Your task to perform on an android device: Search for lg ultragear on costco.com, select the first entry, add it to the cart, then select checkout. Image 0: 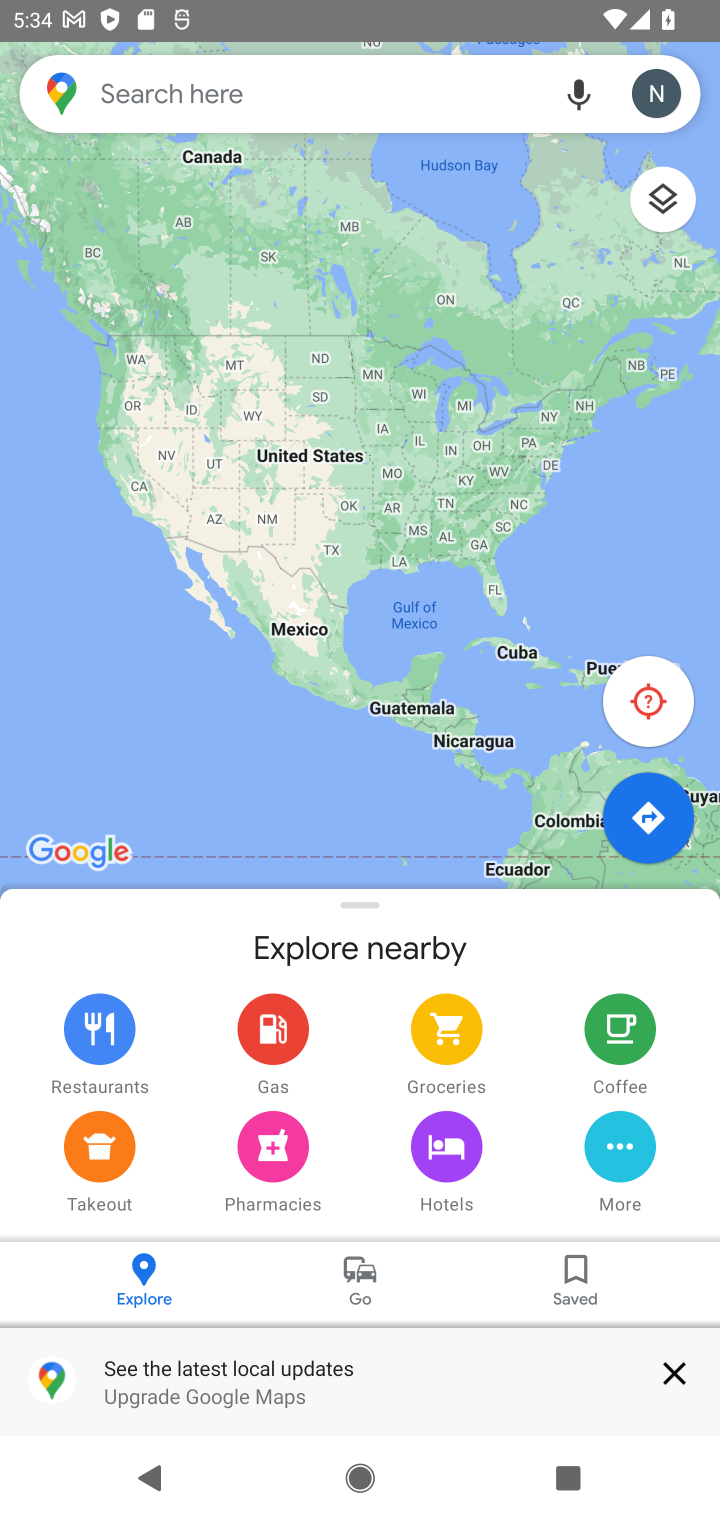
Step 0: press home button
Your task to perform on an android device: Search for lg ultragear on costco.com, select the first entry, add it to the cart, then select checkout. Image 1: 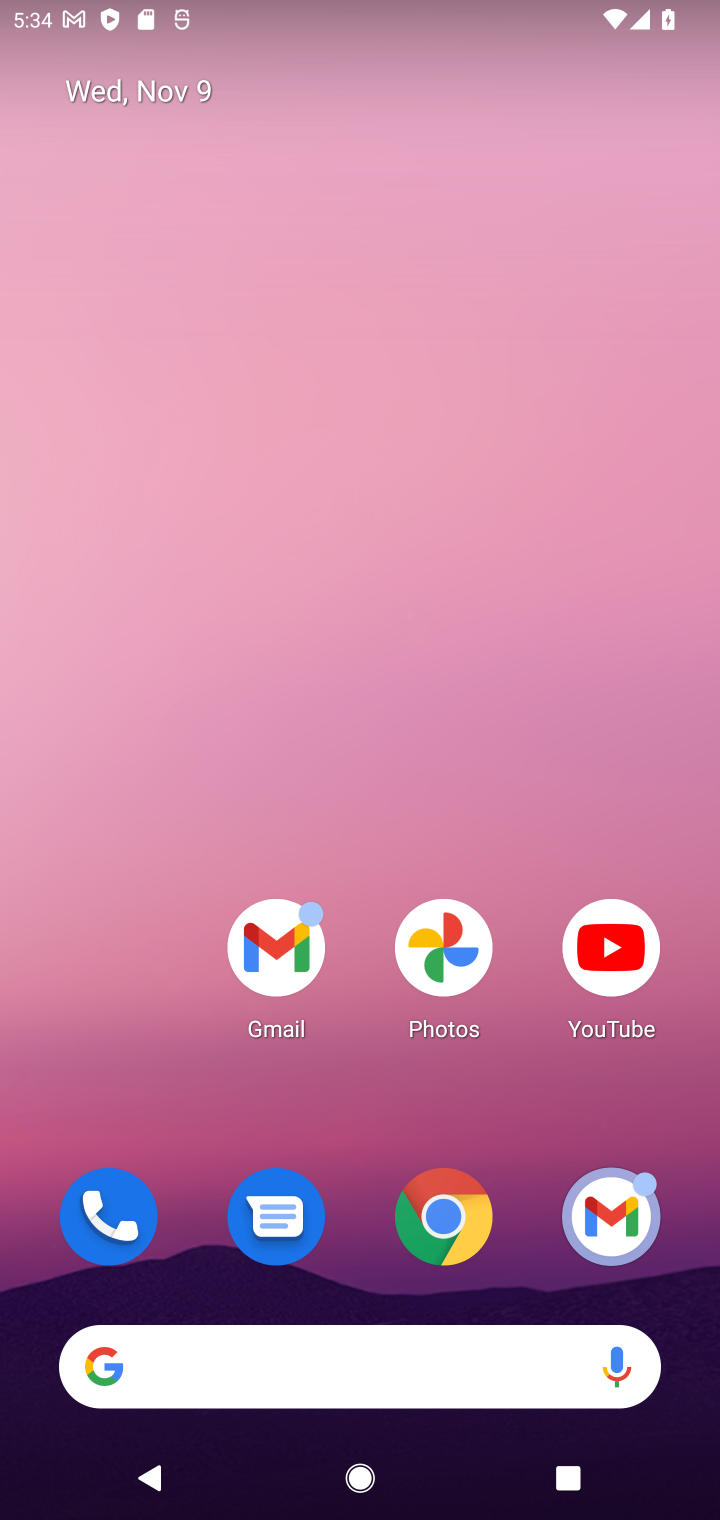
Step 1: drag from (363, 1106) to (433, 138)
Your task to perform on an android device: Search for lg ultragear on costco.com, select the first entry, add it to the cart, then select checkout. Image 2: 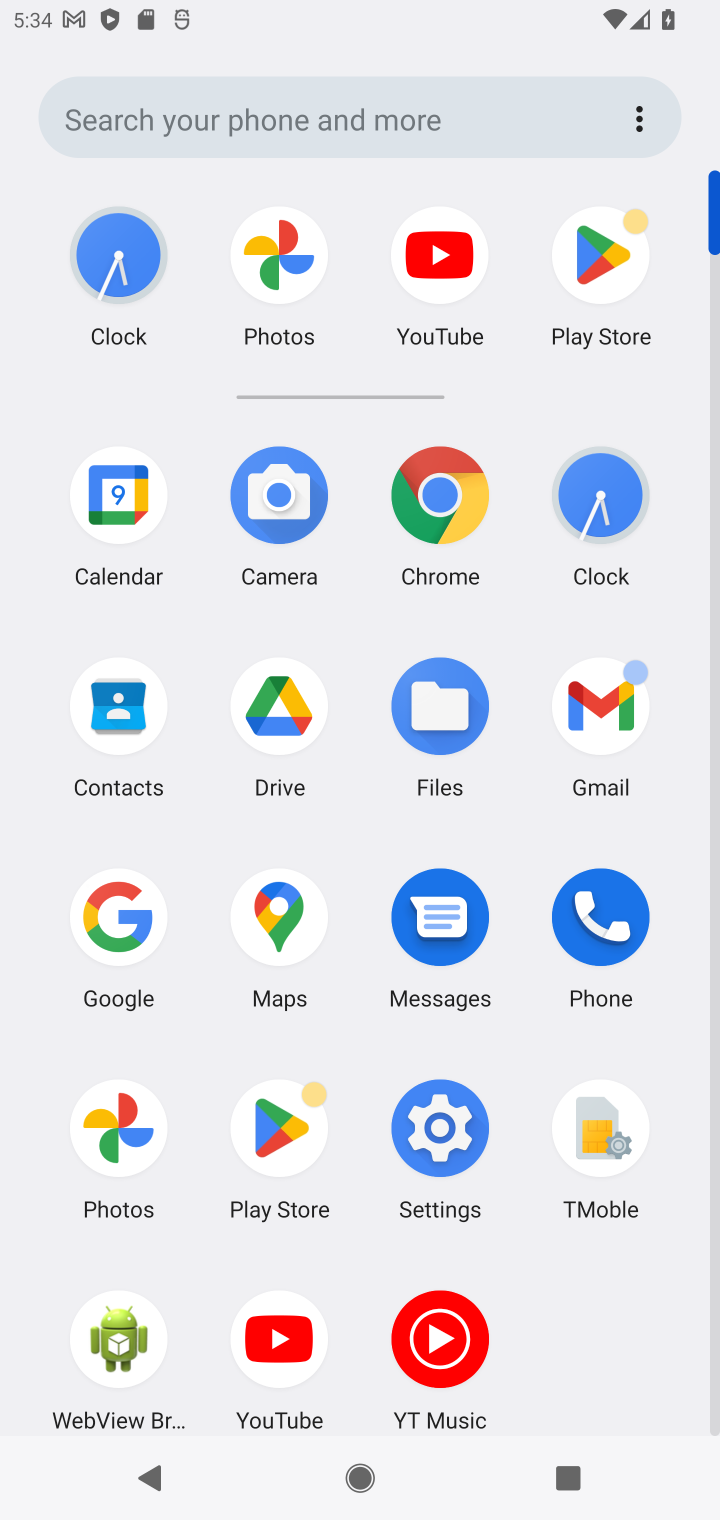
Step 2: click (445, 501)
Your task to perform on an android device: Search for lg ultragear on costco.com, select the first entry, add it to the cart, then select checkout. Image 3: 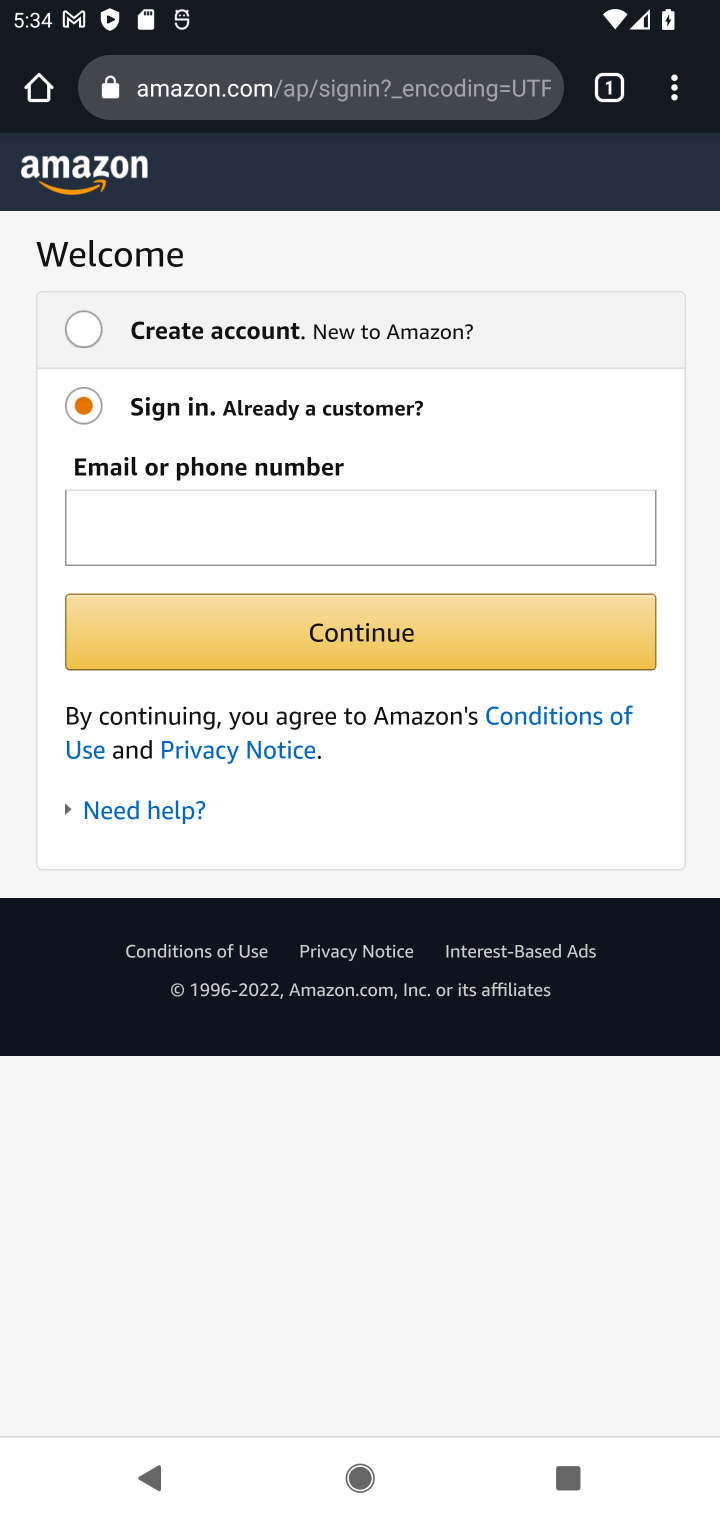
Step 3: click (268, 94)
Your task to perform on an android device: Search for lg ultragear on costco.com, select the first entry, add it to the cart, then select checkout. Image 4: 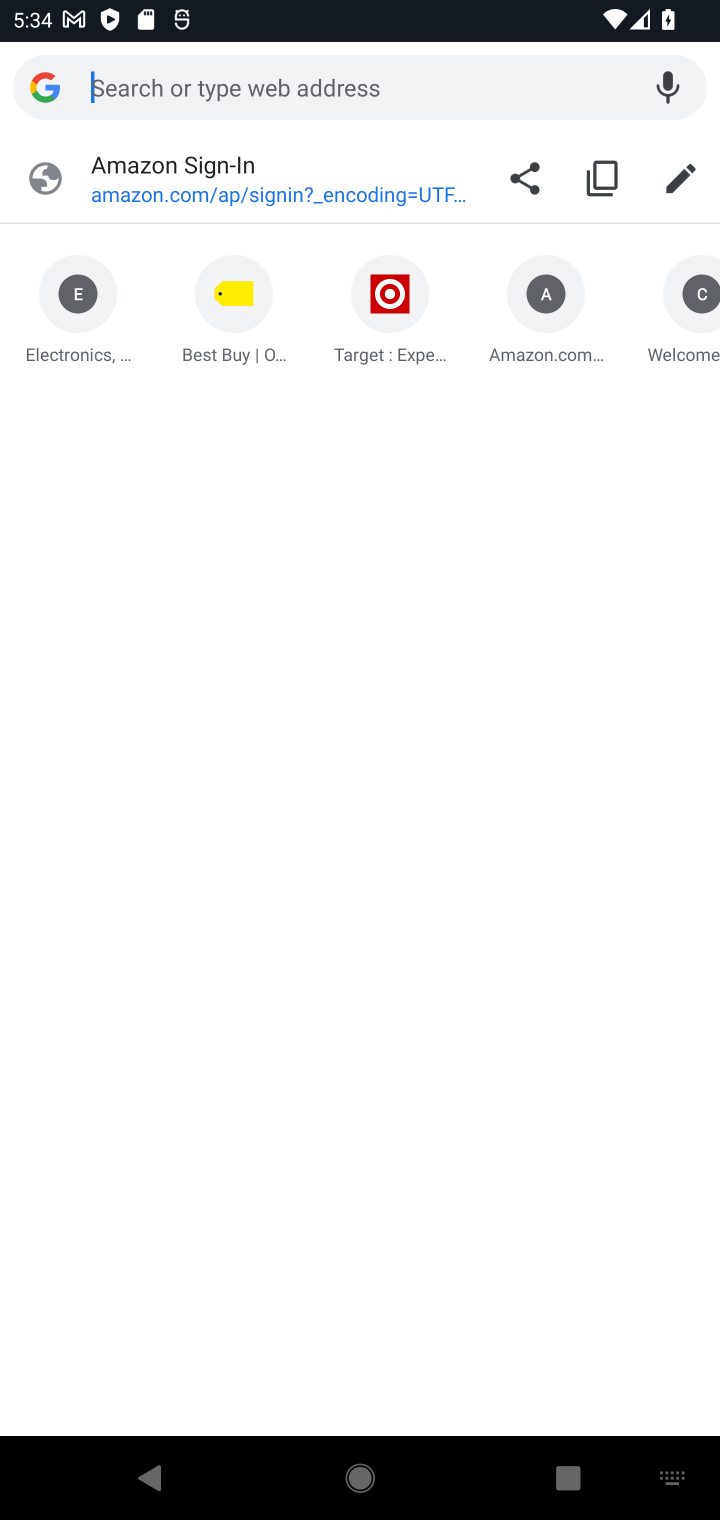
Step 4: type "costco.com"
Your task to perform on an android device: Search for lg ultragear on costco.com, select the first entry, add it to the cart, then select checkout. Image 5: 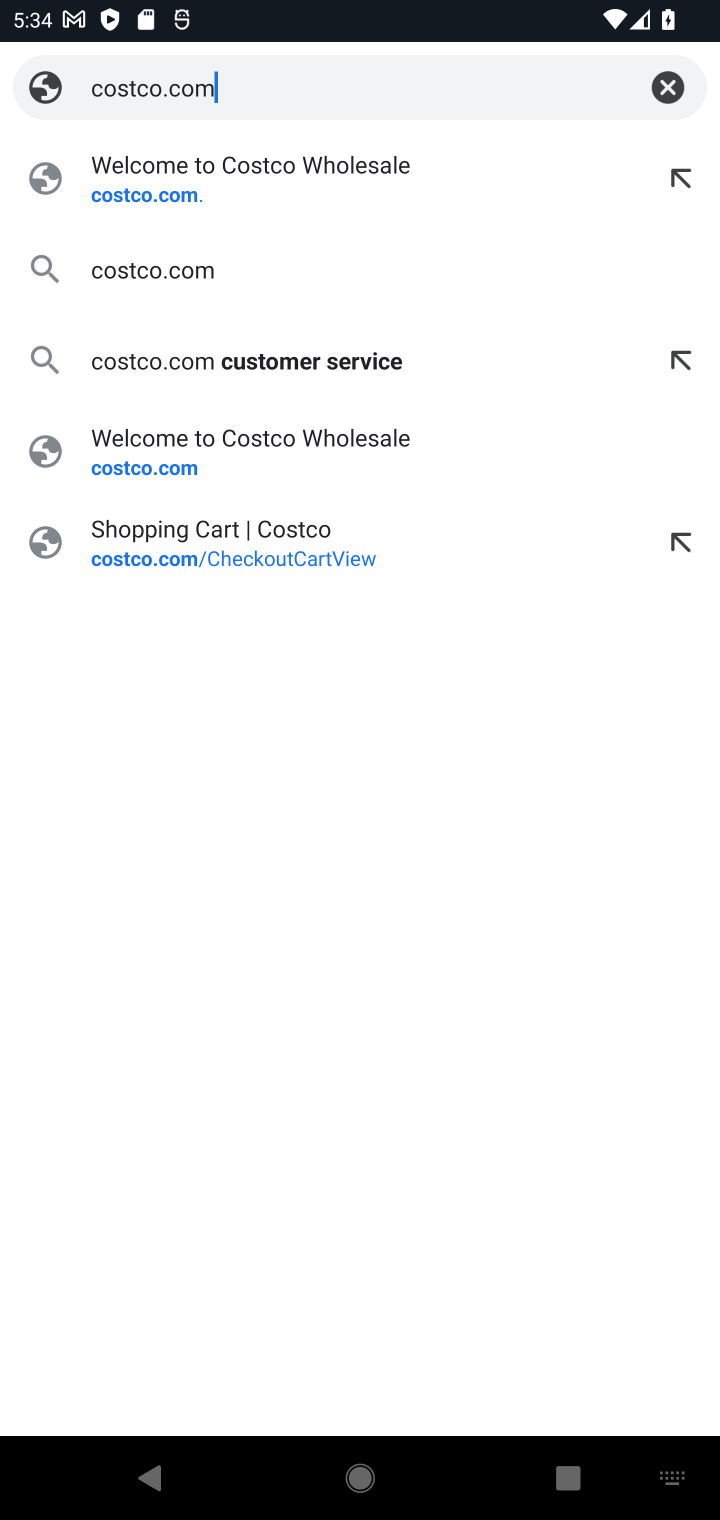
Step 5: press enter
Your task to perform on an android device: Search for lg ultragear on costco.com, select the first entry, add it to the cart, then select checkout. Image 6: 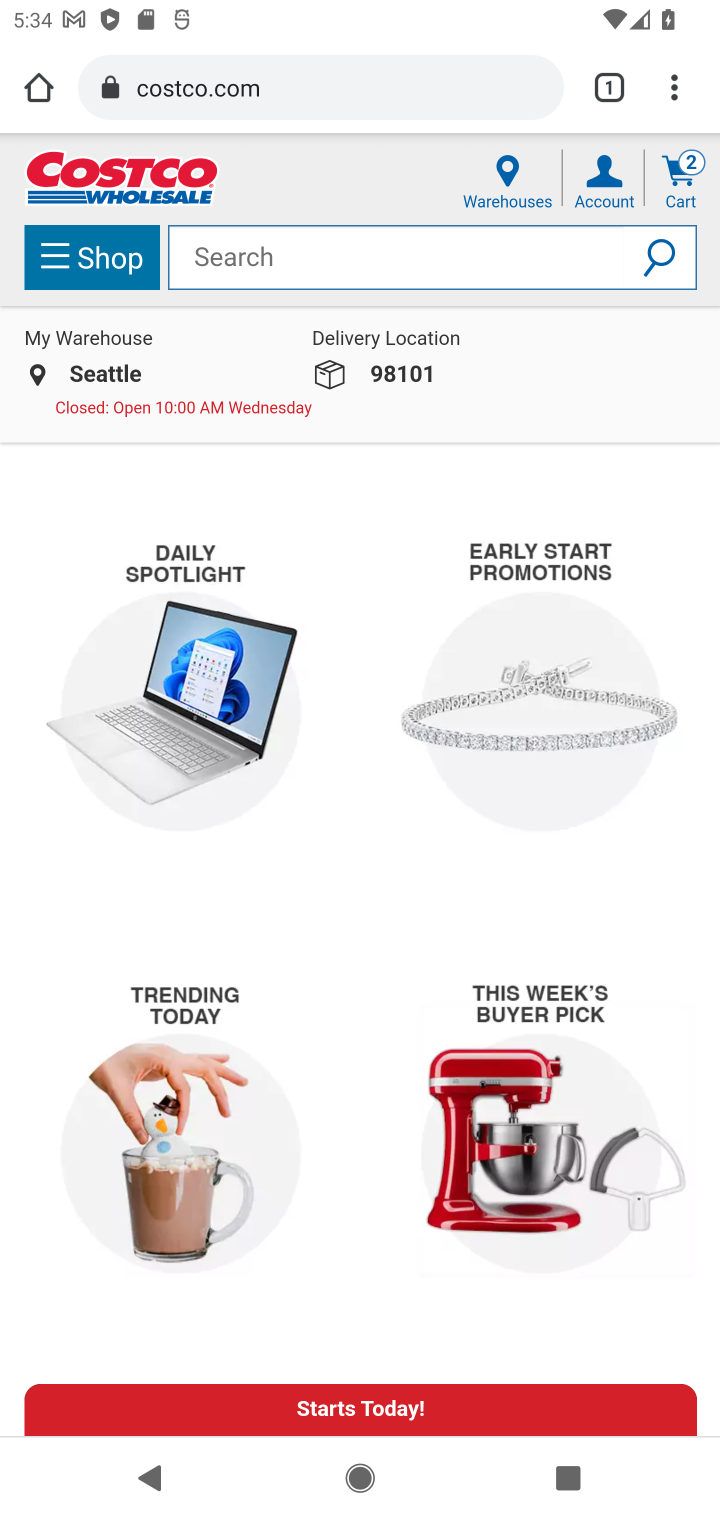
Step 6: click (520, 244)
Your task to perform on an android device: Search for lg ultragear on costco.com, select the first entry, add it to the cart, then select checkout. Image 7: 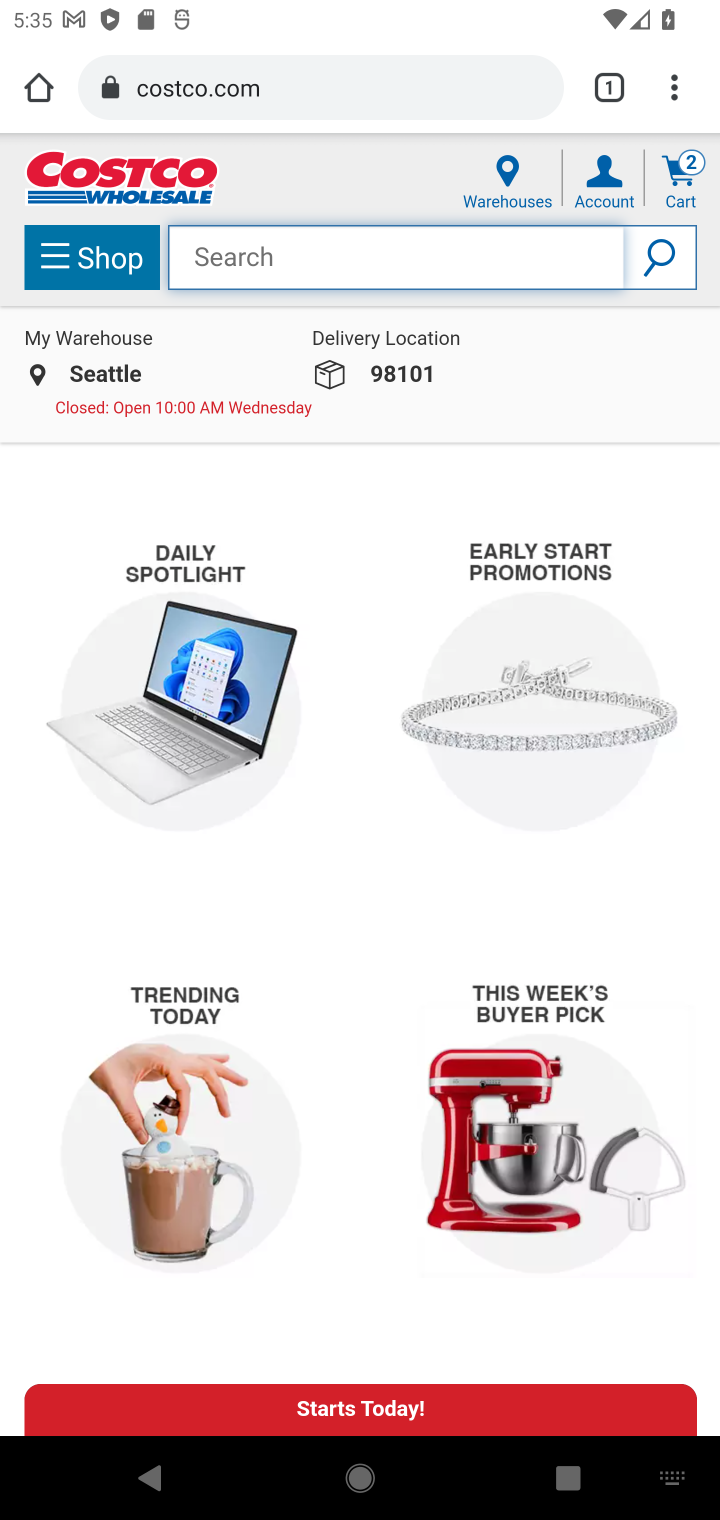
Step 7: type "lg ultagear"
Your task to perform on an android device: Search for lg ultragear on costco.com, select the first entry, add it to the cart, then select checkout. Image 8: 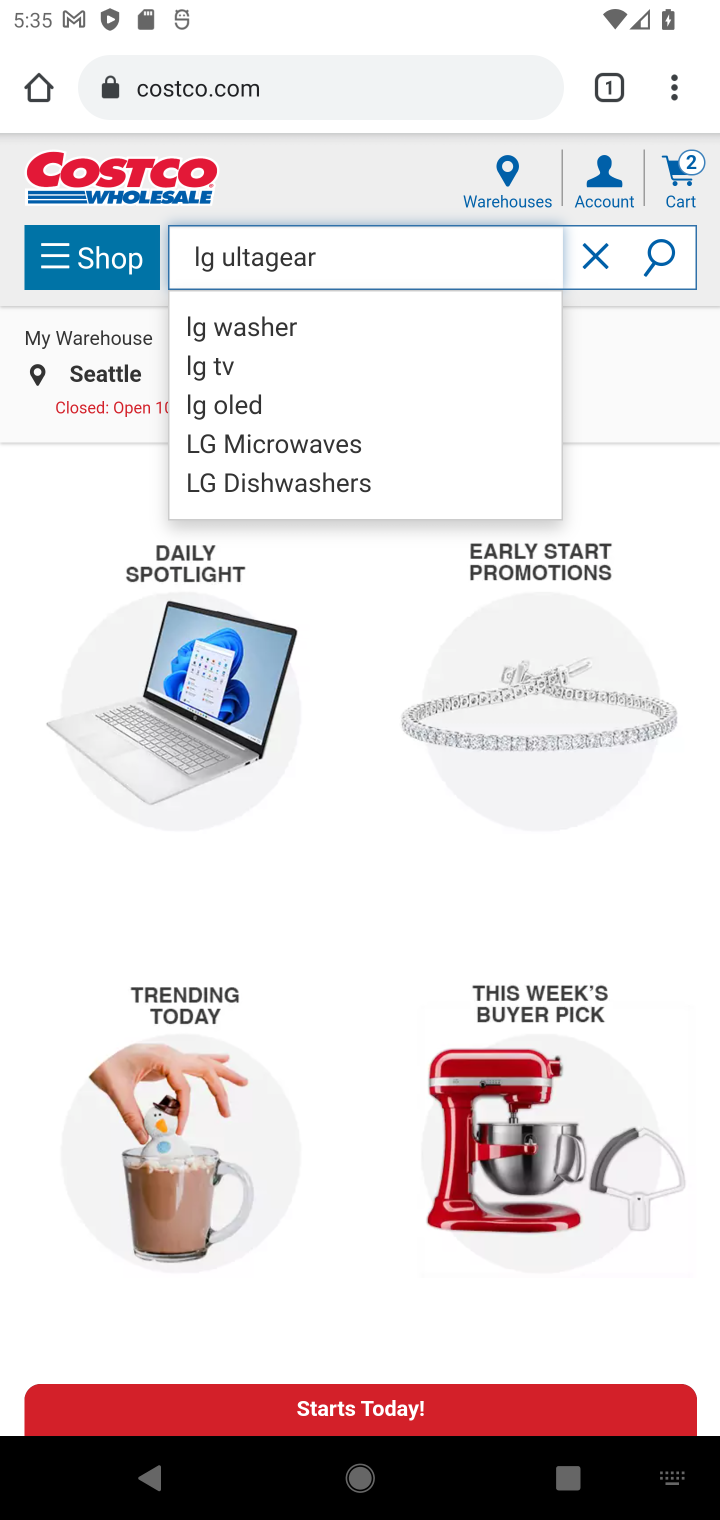
Step 8: press enter
Your task to perform on an android device: Search for lg ultragear on costco.com, select the first entry, add it to the cart, then select checkout. Image 9: 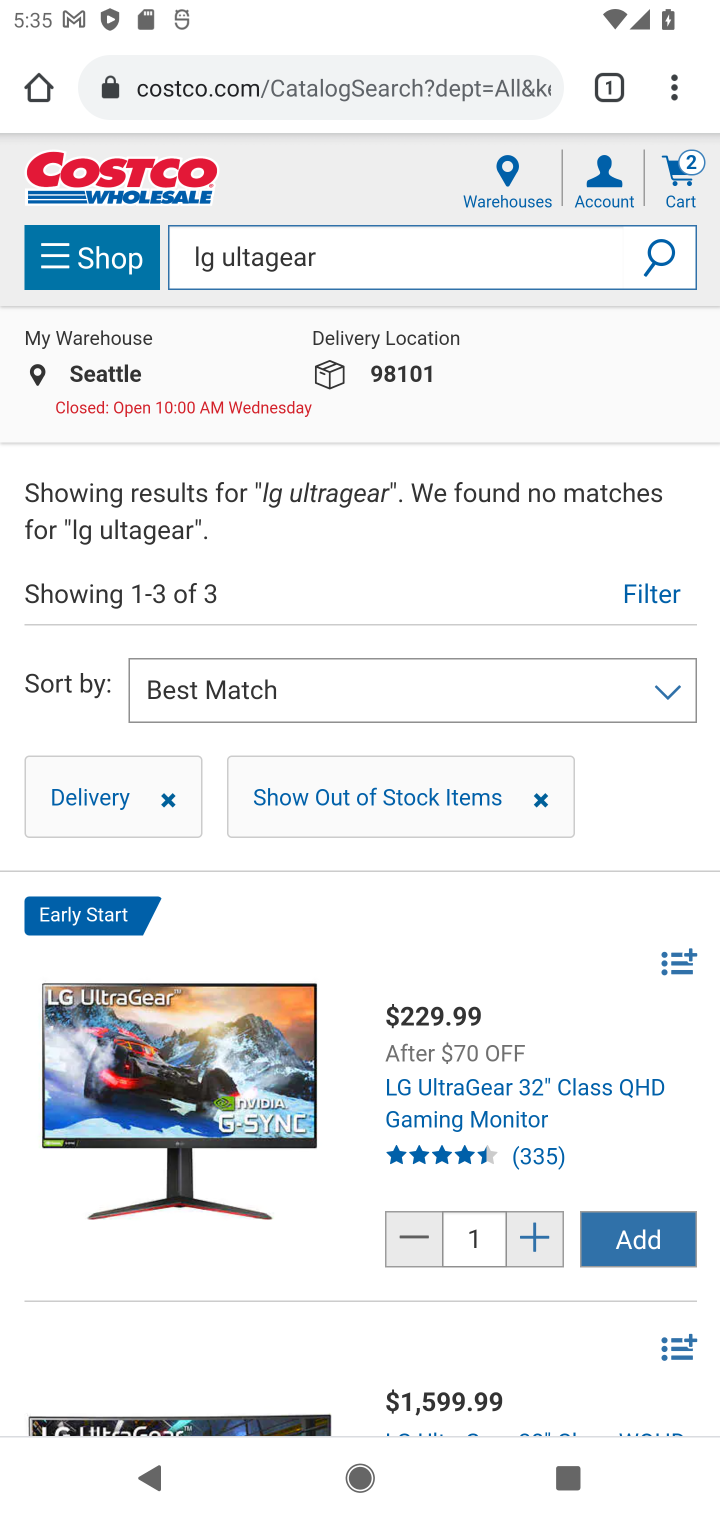
Step 9: click (637, 1249)
Your task to perform on an android device: Search for lg ultragear on costco.com, select the first entry, add it to the cart, then select checkout. Image 10: 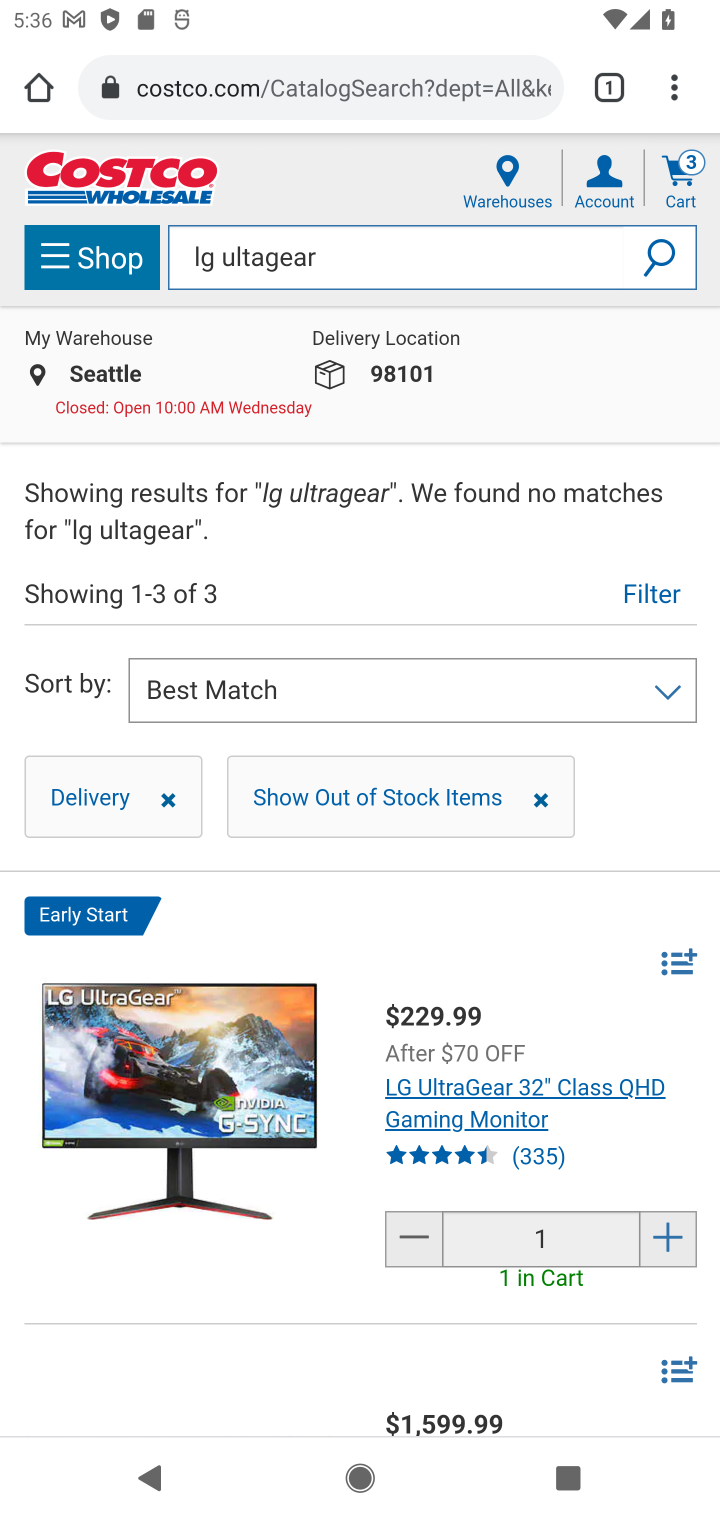
Step 10: click (680, 152)
Your task to perform on an android device: Search for lg ultragear on costco.com, select the first entry, add it to the cart, then select checkout. Image 11: 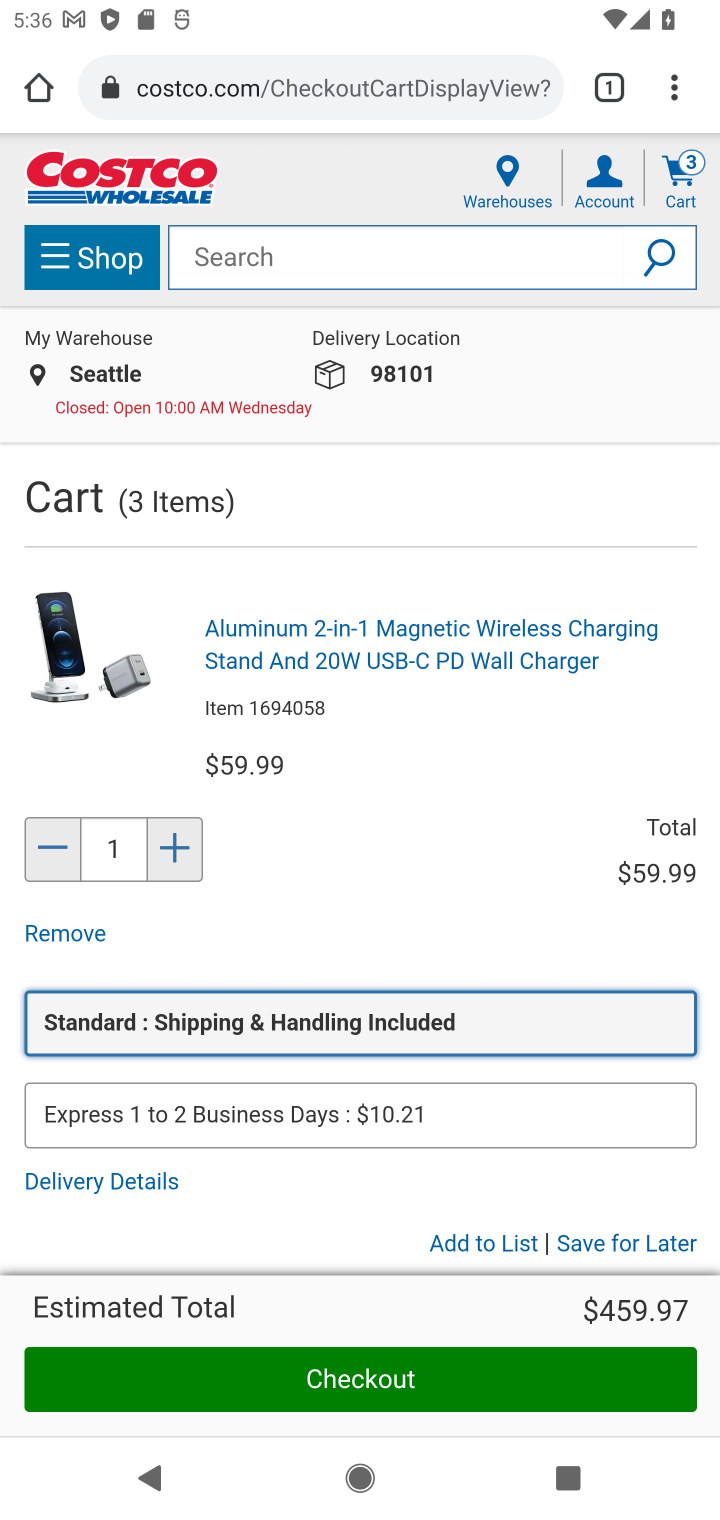
Step 11: click (427, 1360)
Your task to perform on an android device: Search for lg ultragear on costco.com, select the first entry, add it to the cart, then select checkout. Image 12: 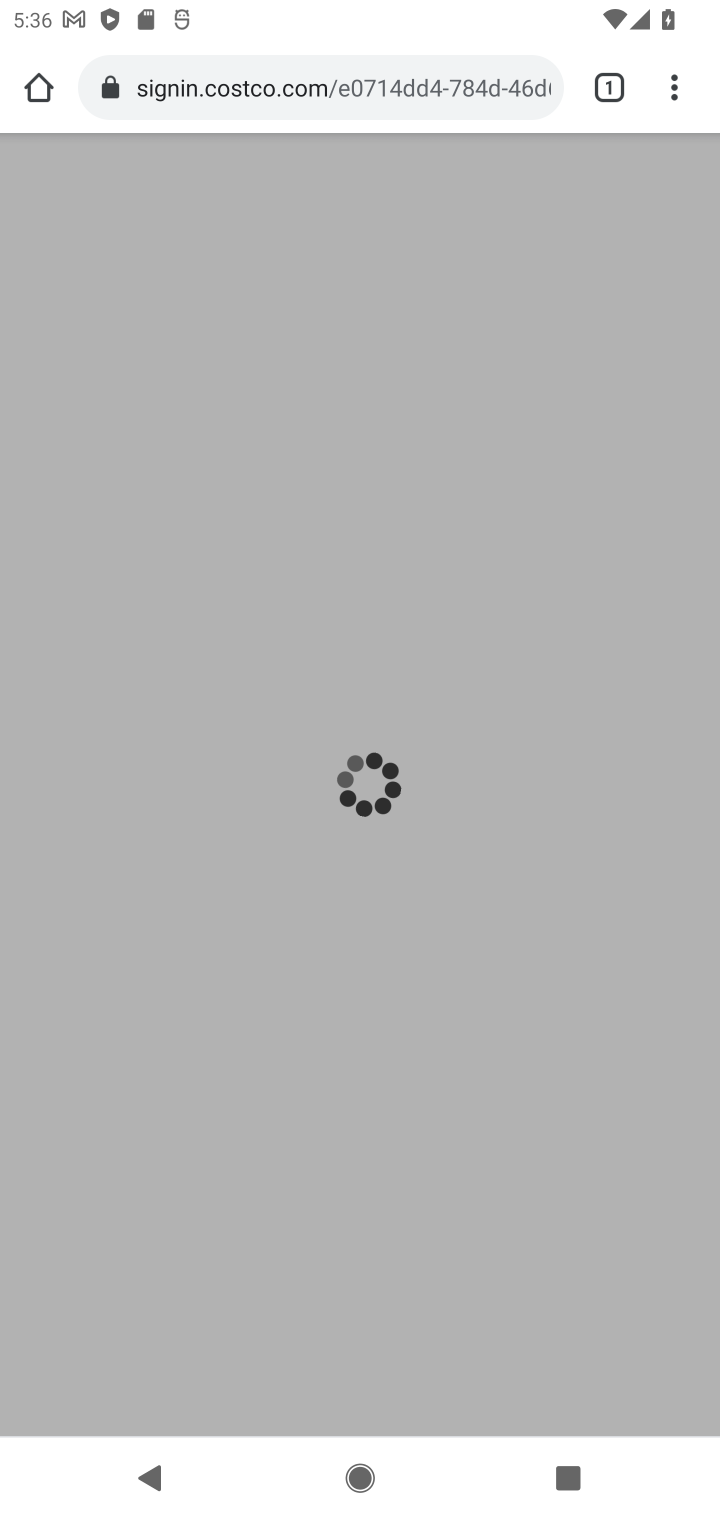
Step 12: click (445, 1430)
Your task to perform on an android device: Search for lg ultragear on costco.com, select the first entry, add it to the cart, then select checkout. Image 13: 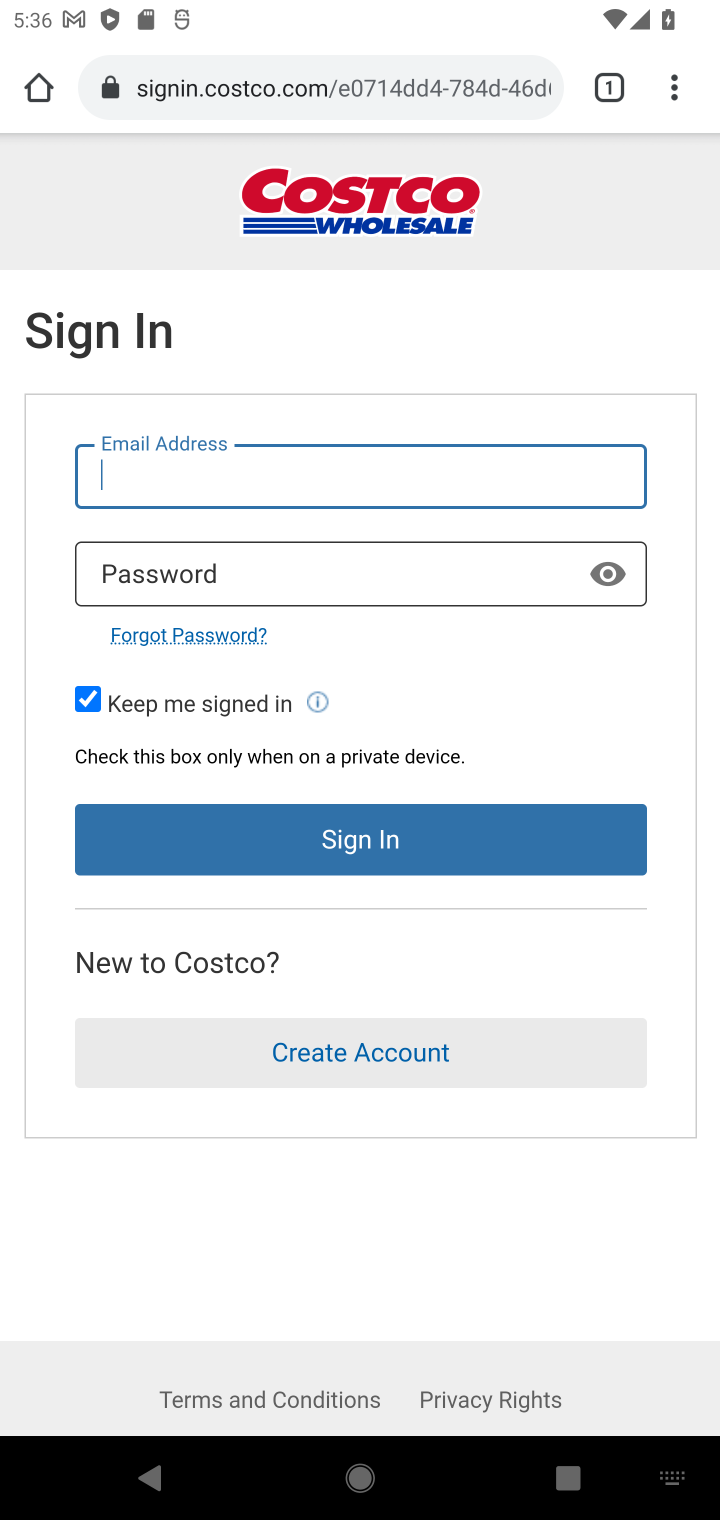
Step 13: task complete